Your task to perform on an android device: turn off notifications settings in the gmail app Image 0: 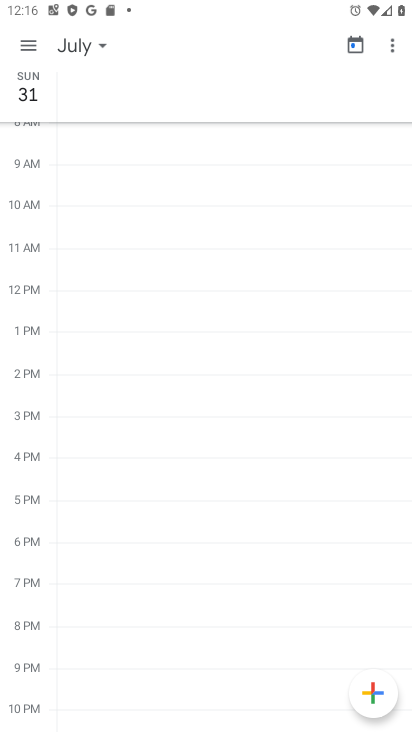
Step 0: press home button
Your task to perform on an android device: turn off notifications settings in the gmail app Image 1: 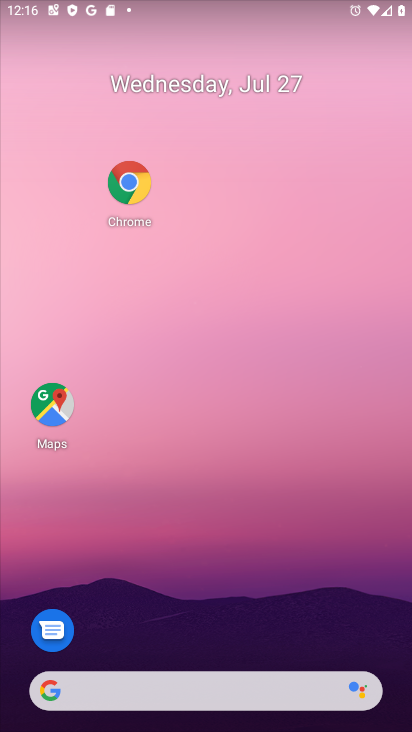
Step 1: drag from (189, 721) to (233, 195)
Your task to perform on an android device: turn off notifications settings in the gmail app Image 2: 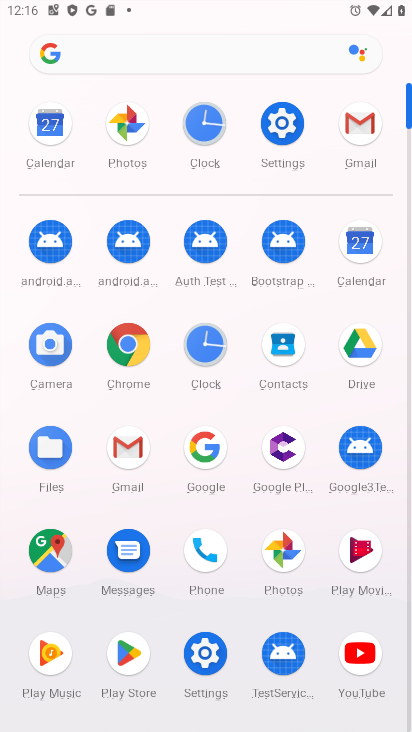
Step 2: click (121, 455)
Your task to perform on an android device: turn off notifications settings in the gmail app Image 3: 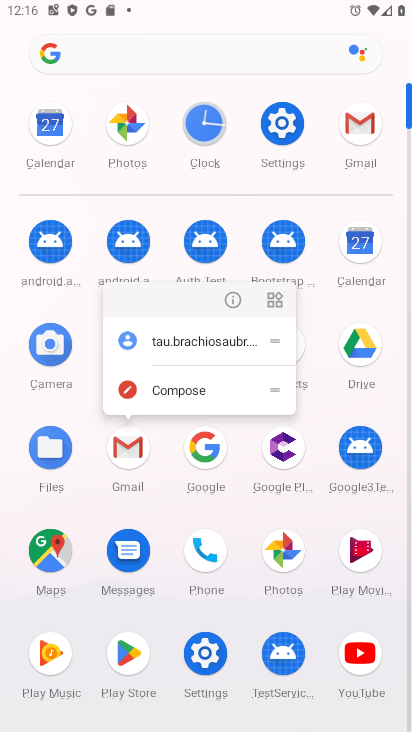
Step 3: click (235, 299)
Your task to perform on an android device: turn off notifications settings in the gmail app Image 4: 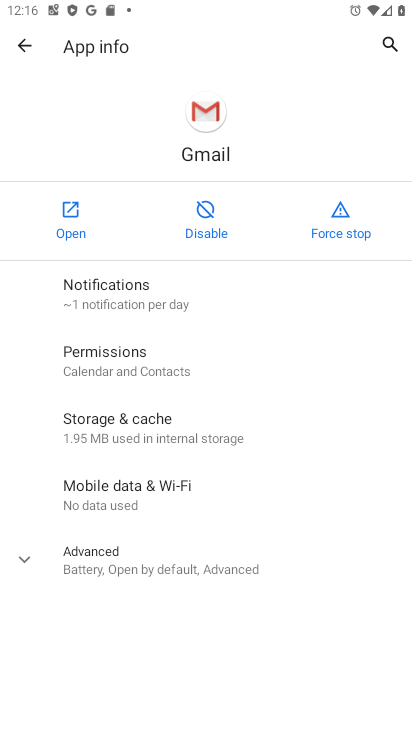
Step 4: click (171, 283)
Your task to perform on an android device: turn off notifications settings in the gmail app Image 5: 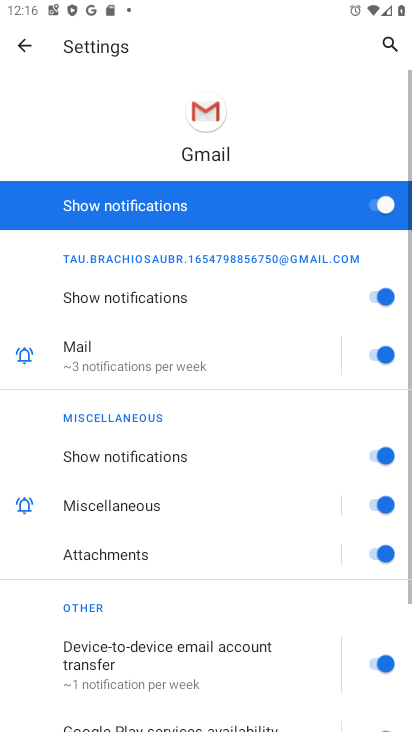
Step 5: click (381, 203)
Your task to perform on an android device: turn off notifications settings in the gmail app Image 6: 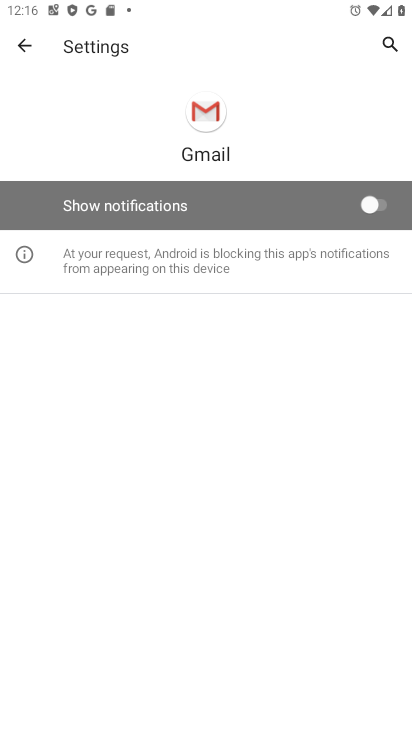
Step 6: task complete